Your task to perform on an android device: install app "Booking.com: Hotels and more" Image 0: 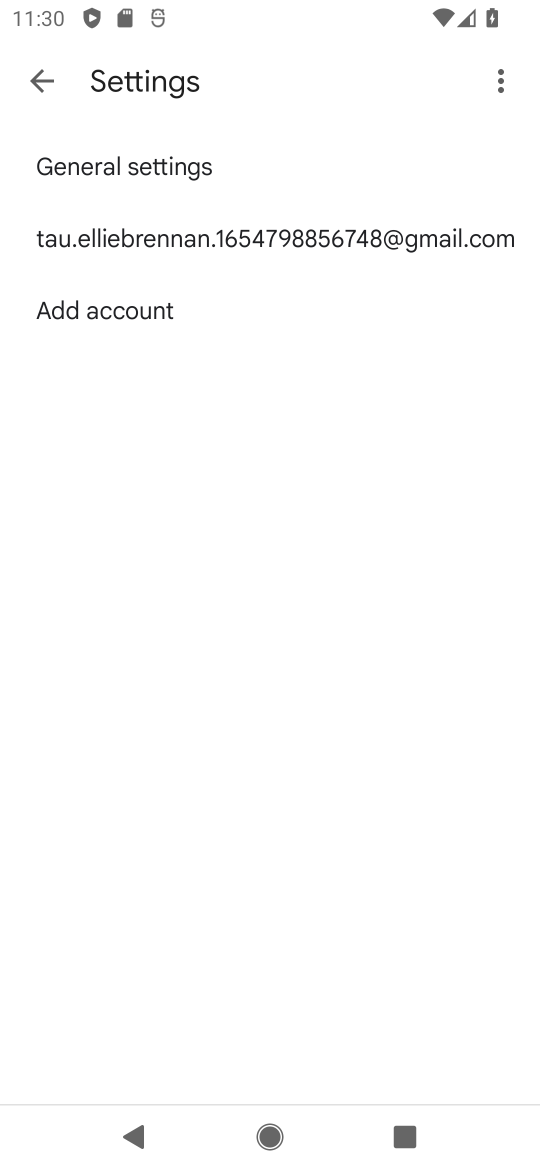
Step 0: press back button
Your task to perform on an android device: install app "Booking.com: Hotels and more" Image 1: 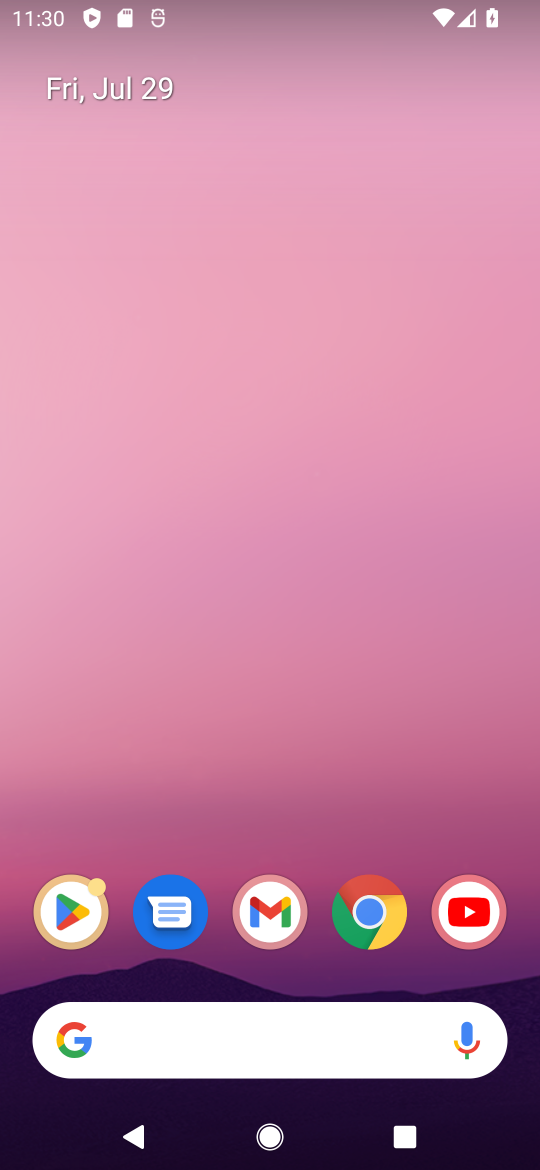
Step 1: click (71, 922)
Your task to perform on an android device: install app "Booking.com: Hotels and more" Image 2: 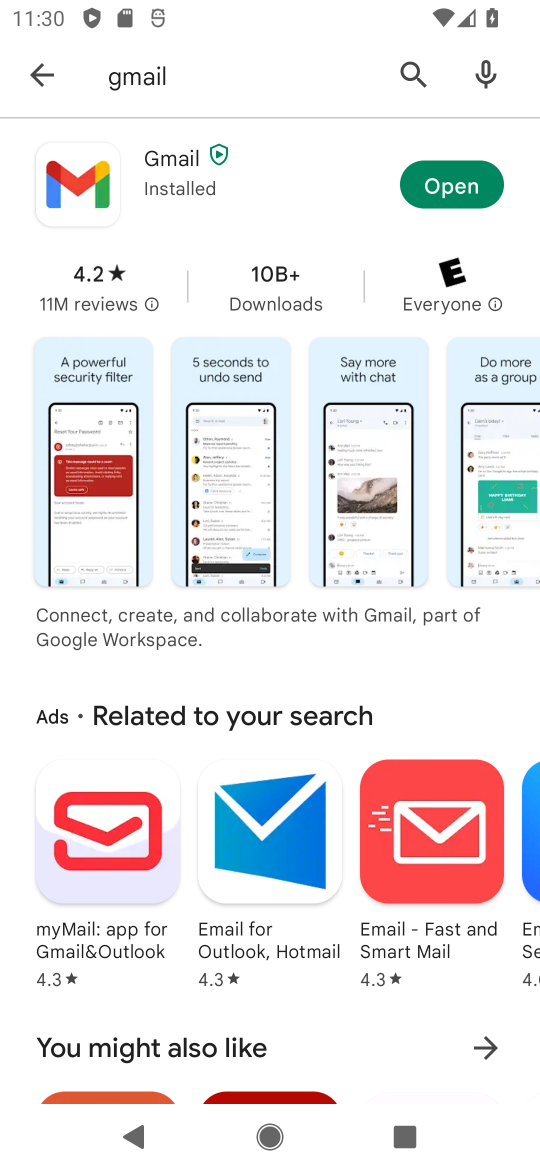
Step 2: click (395, 74)
Your task to perform on an android device: install app "Booking.com: Hotels and more" Image 3: 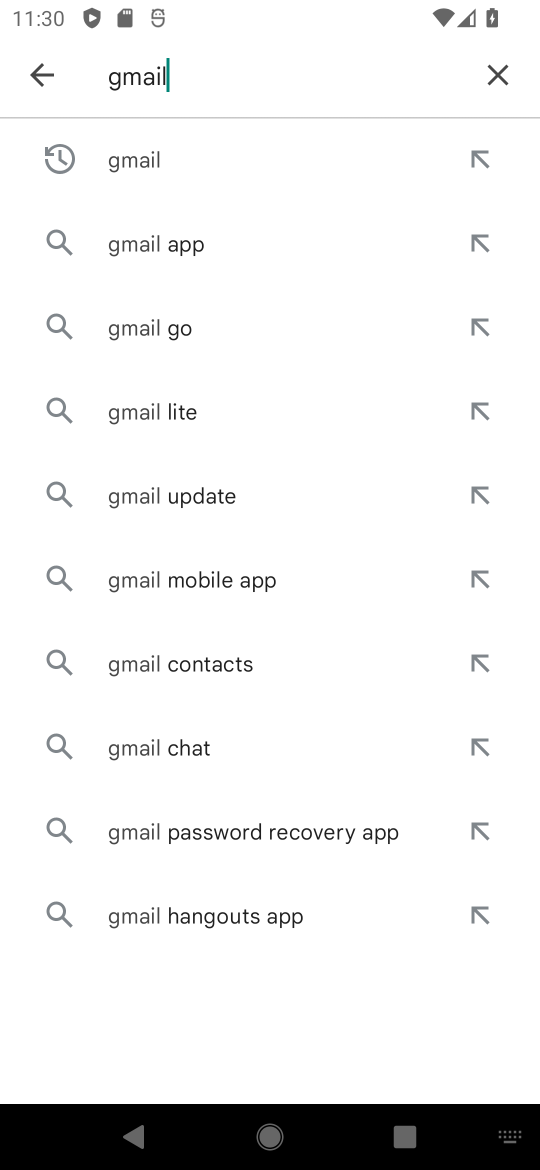
Step 3: click (504, 67)
Your task to perform on an android device: install app "Booking.com: Hotels and more" Image 4: 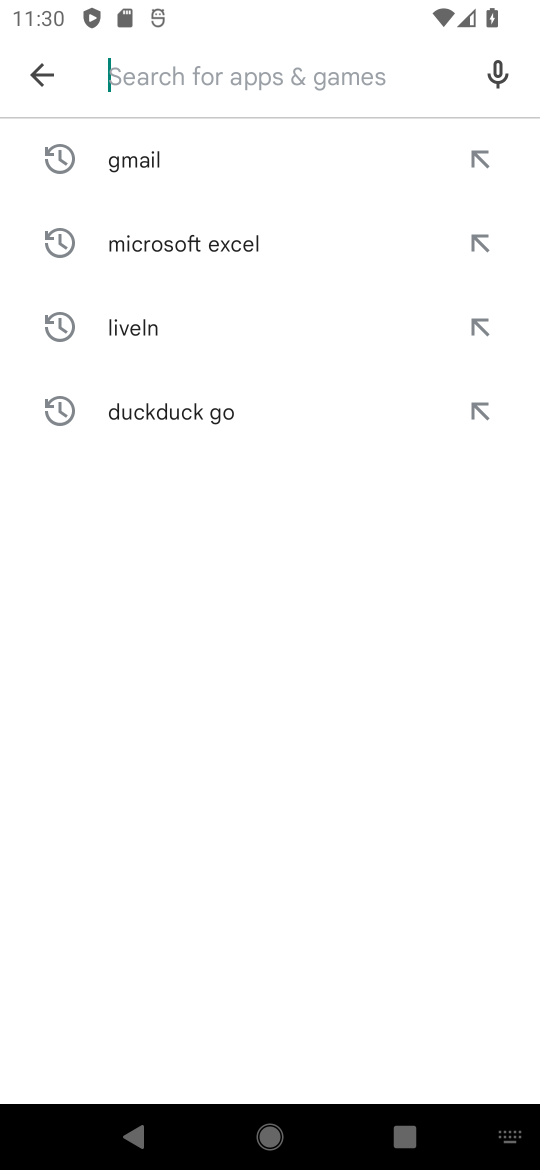
Step 4: type "booking.com hotels"
Your task to perform on an android device: install app "Booking.com: Hotels and more" Image 5: 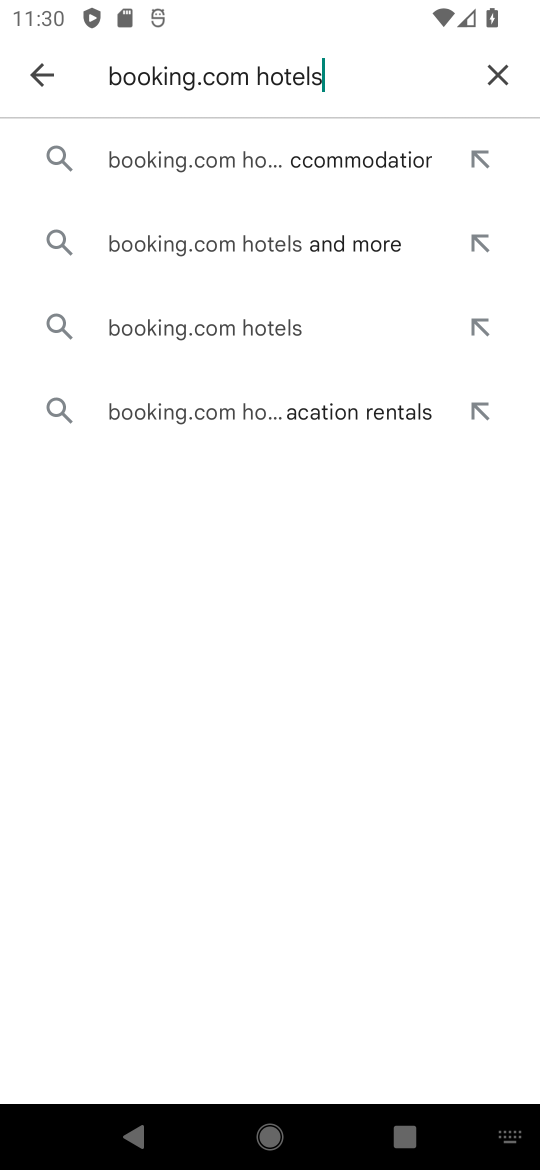
Step 5: click (325, 258)
Your task to perform on an android device: install app "Booking.com: Hotels and more" Image 6: 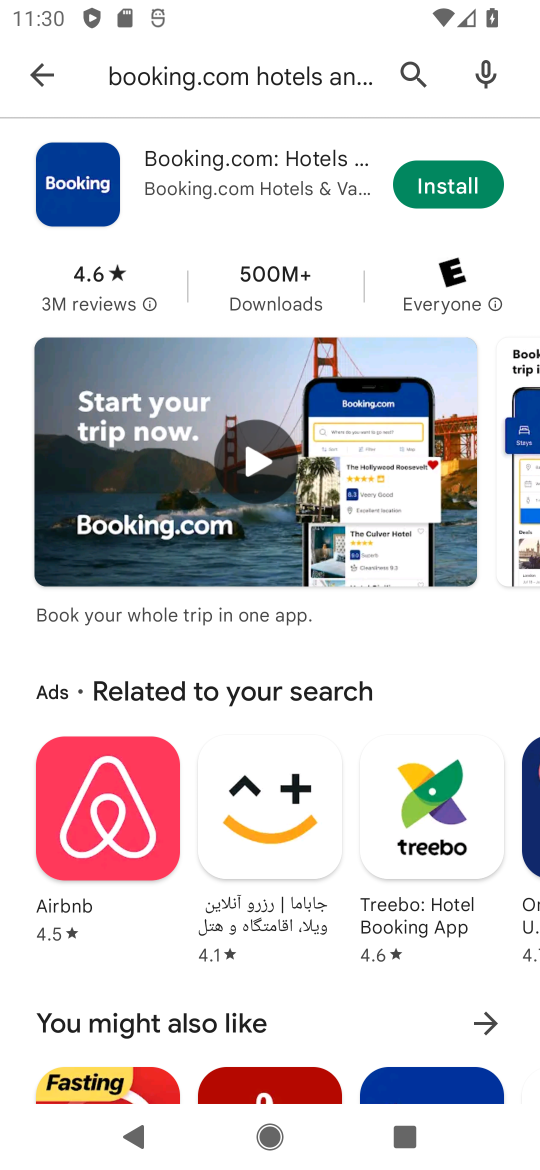
Step 6: click (493, 199)
Your task to perform on an android device: install app "Booking.com: Hotels and more" Image 7: 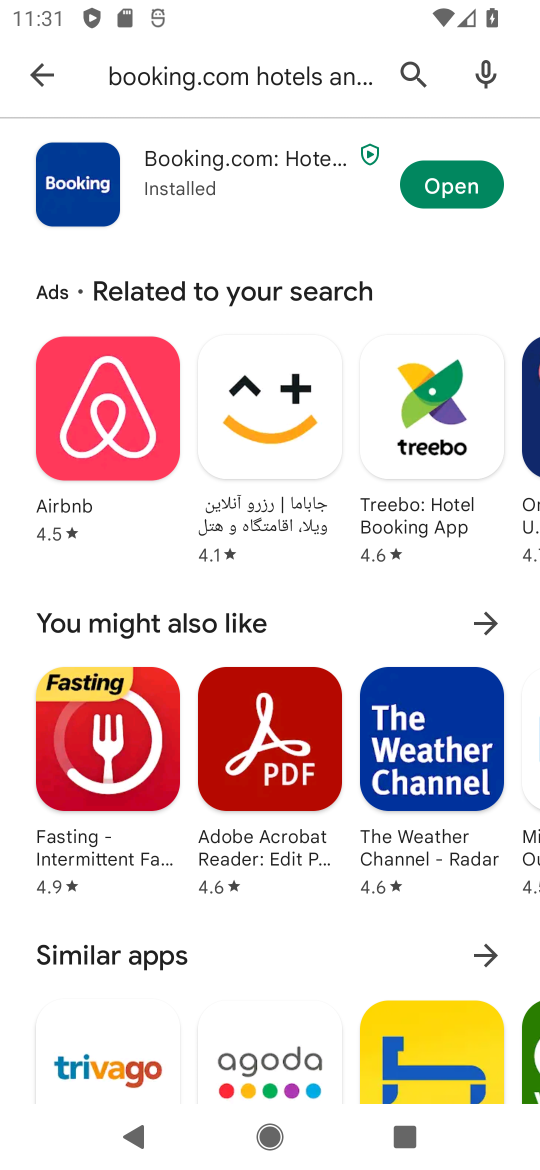
Step 7: task complete